Your task to perform on an android device: toggle sleep mode Image 0: 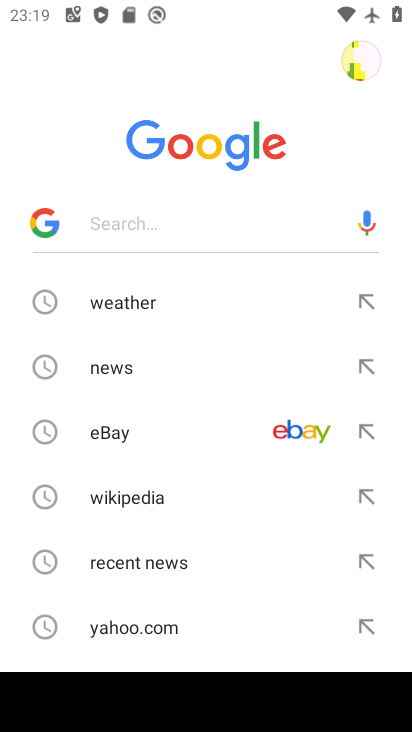
Step 0: press back button
Your task to perform on an android device: toggle sleep mode Image 1: 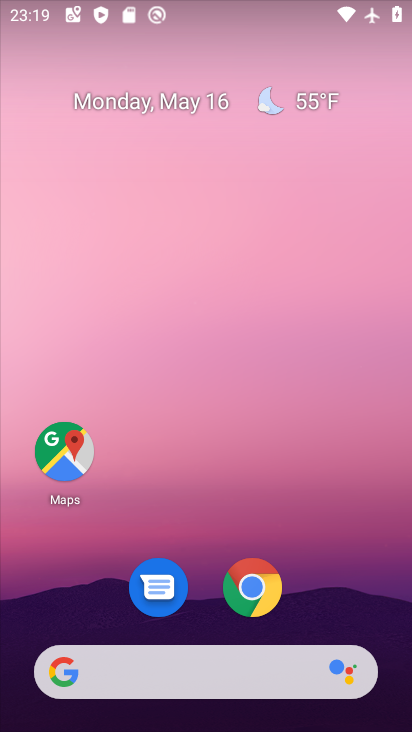
Step 1: drag from (353, 509) to (252, 100)
Your task to perform on an android device: toggle sleep mode Image 2: 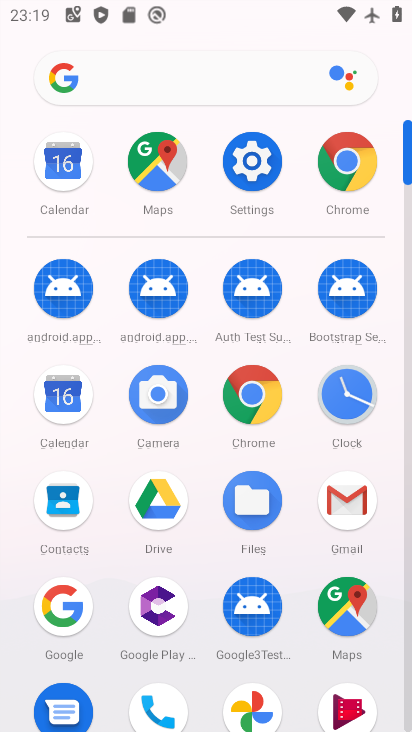
Step 2: drag from (17, 617) to (7, 253)
Your task to perform on an android device: toggle sleep mode Image 3: 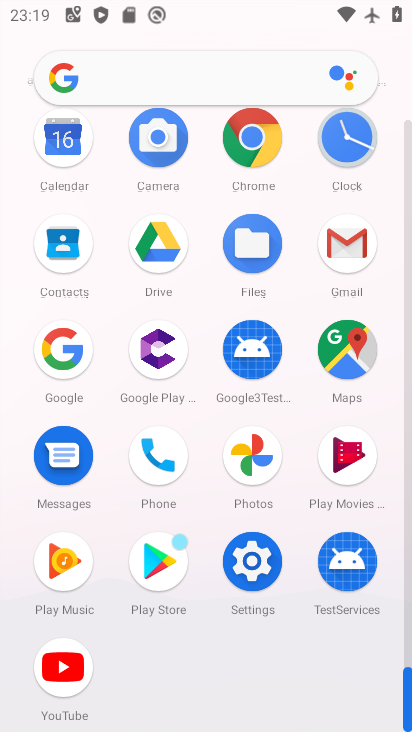
Step 3: drag from (19, 566) to (20, 302)
Your task to perform on an android device: toggle sleep mode Image 4: 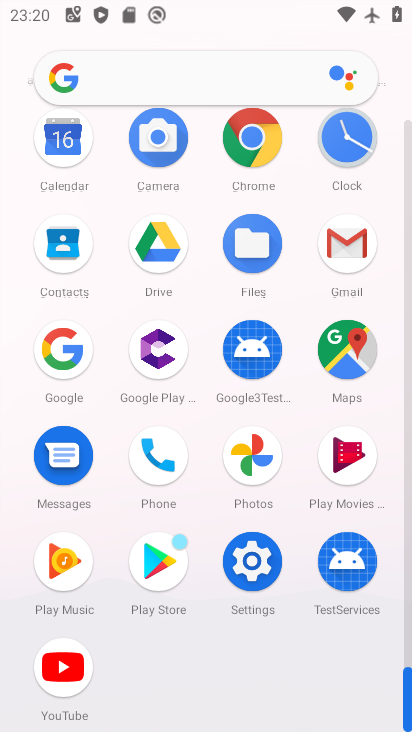
Step 4: click (247, 558)
Your task to perform on an android device: toggle sleep mode Image 5: 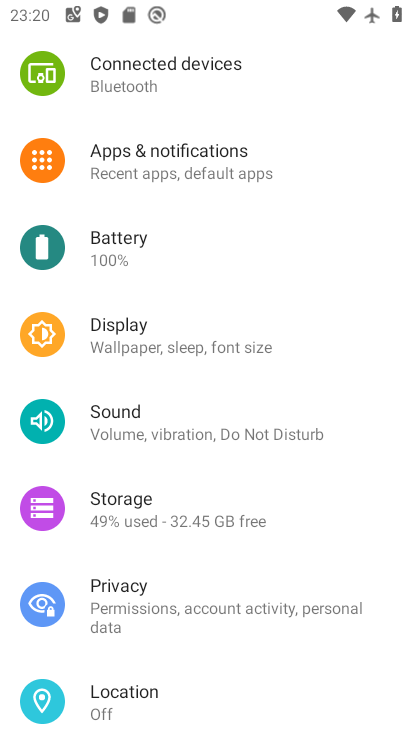
Step 5: click (169, 328)
Your task to perform on an android device: toggle sleep mode Image 6: 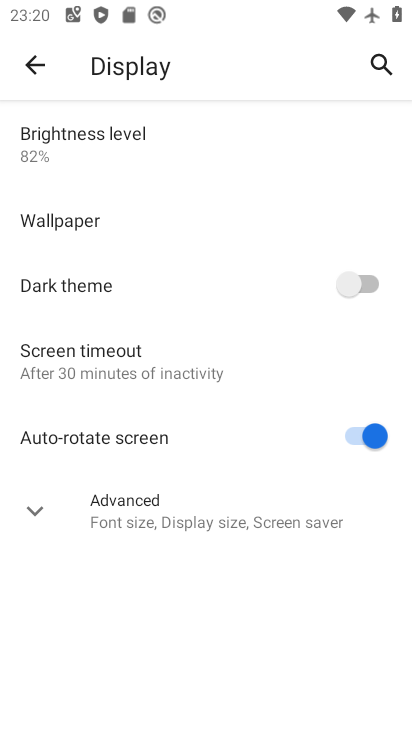
Step 6: click (51, 501)
Your task to perform on an android device: toggle sleep mode Image 7: 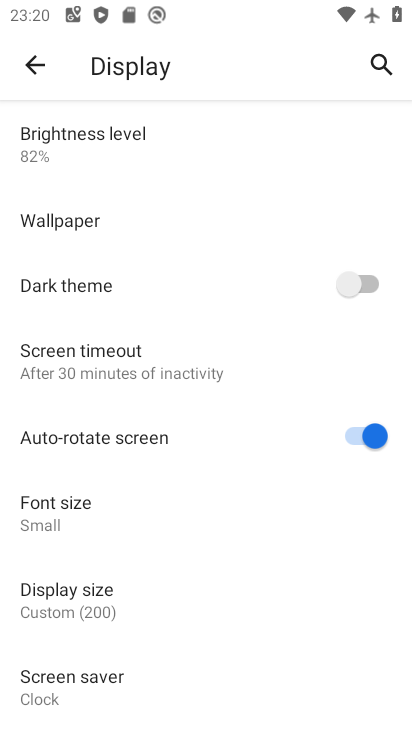
Step 7: task complete